Your task to perform on an android device: Open Google Image 0: 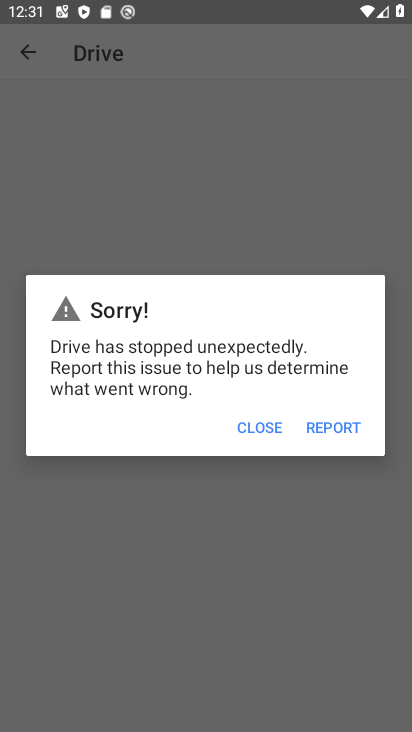
Step 0: press home button
Your task to perform on an android device: Open Google Image 1: 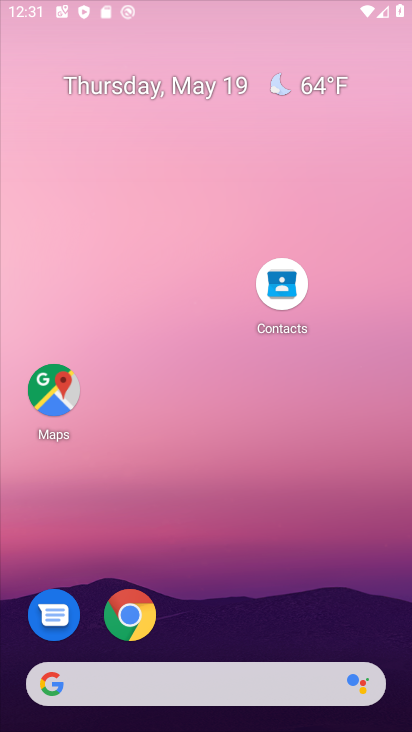
Step 1: drag from (295, 625) to (286, 93)
Your task to perform on an android device: Open Google Image 2: 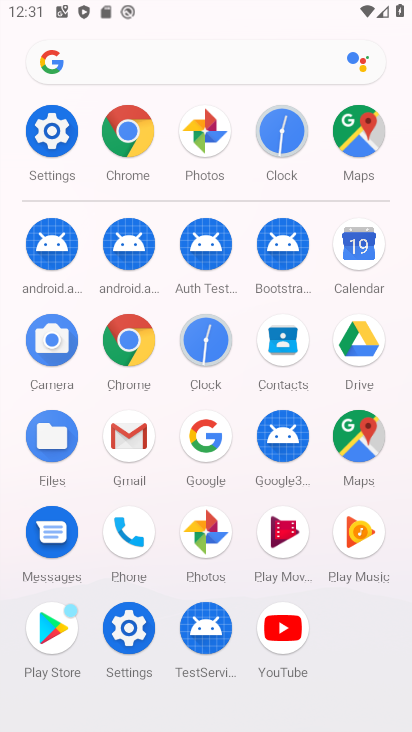
Step 2: drag from (237, 506) to (242, 228)
Your task to perform on an android device: Open Google Image 3: 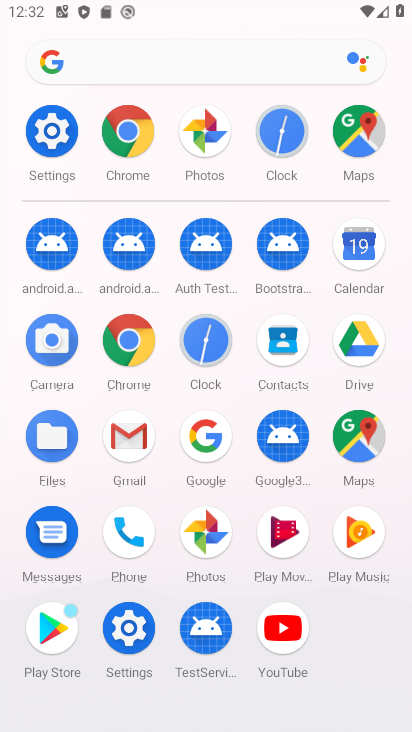
Step 3: click (194, 465)
Your task to perform on an android device: Open Google Image 4: 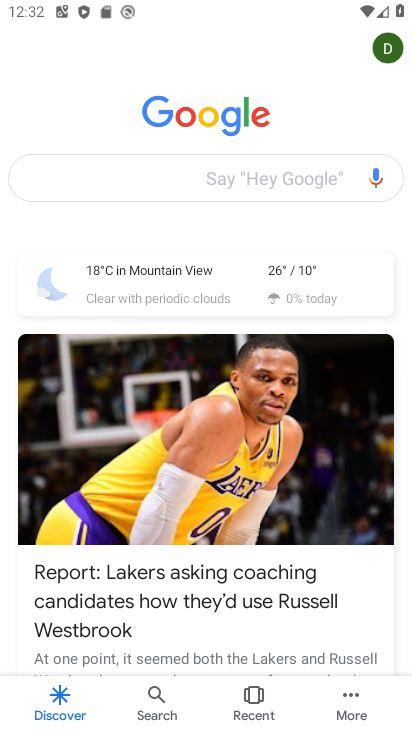
Step 4: task complete